Your task to perform on an android device: turn on data saver in the chrome app Image 0: 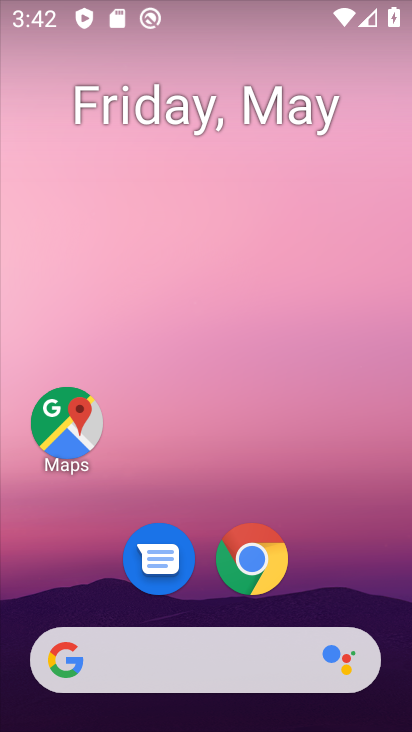
Step 0: drag from (343, 581) to (332, 137)
Your task to perform on an android device: turn on data saver in the chrome app Image 1: 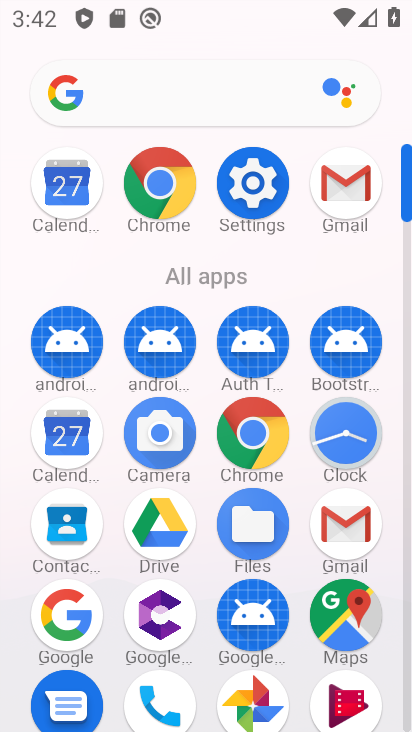
Step 1: click (146, 182)
Your task to perform on an android device: turn on data saver in the chrome app Image 2: 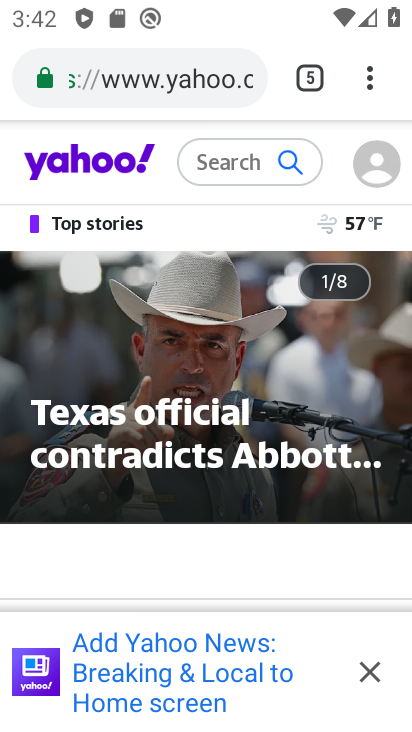
Step 2: click (367, 65)
Your task to perform on an android device: turn on data saver in the chrome app Image 3: 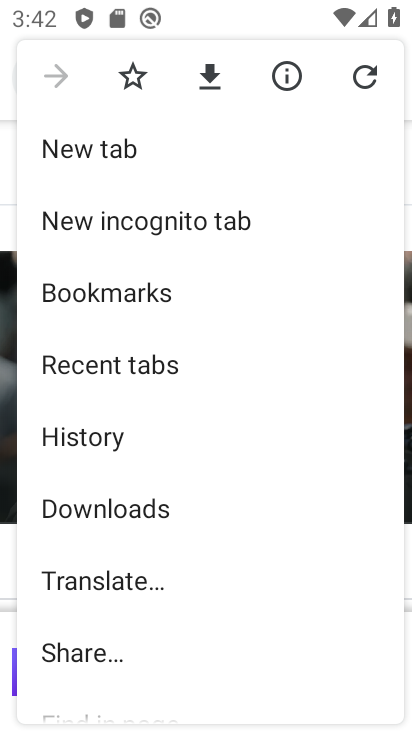
Step 3: drag from (184, 630) to (183, 245)
Your task to perform on an android device: turn on data saver in the chrome app Image 4: 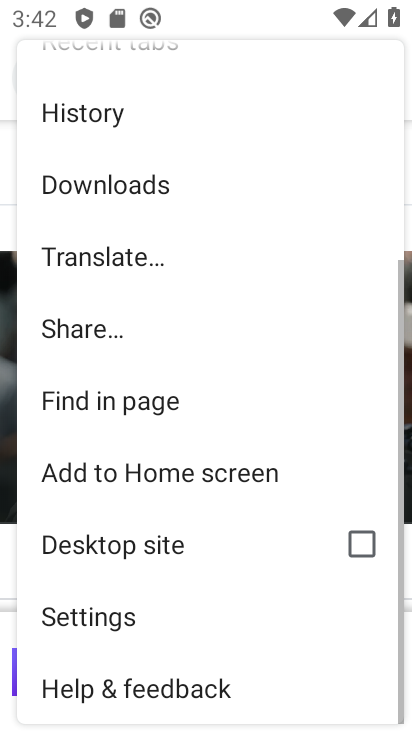
Step 4: drag from (157, 609) to (170, 198)
Your task to perform on an android device: turn on data saver in the chrome app Image 5: 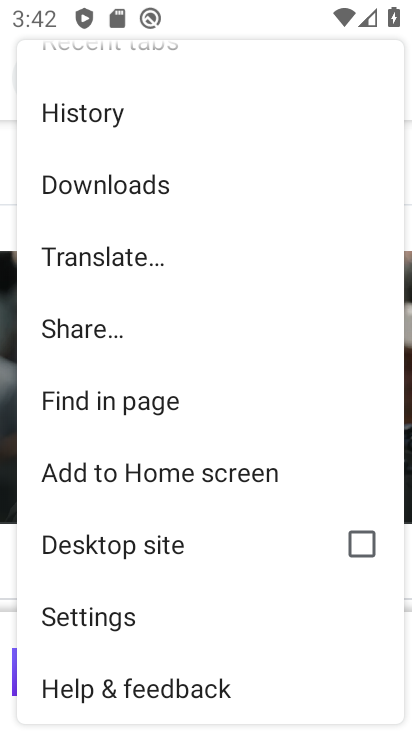
Step 5: click (88, 610)
Your task to perform on an android device: turn on data saver in the chrome app Image 6: 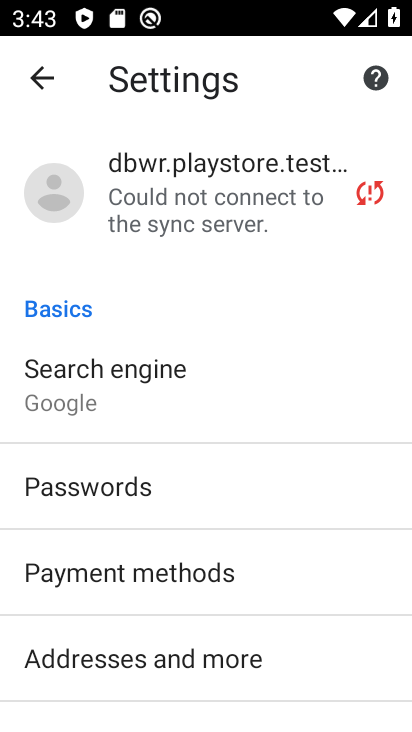
Step 6: drag from (245, 691) to (262, 307)
Your task to perform on an android device: turn on data saver in the chrome app Image 7: 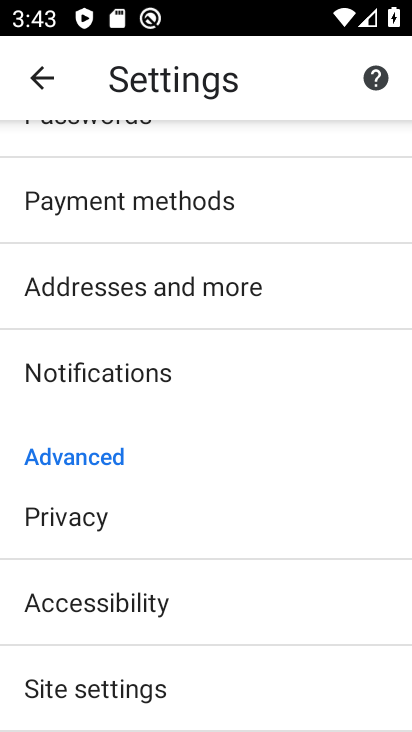
Step 7: drag from (149, 384) to (156, 256)
Your task to perform on an android device: turn on data saver in the chrome app Image 8: 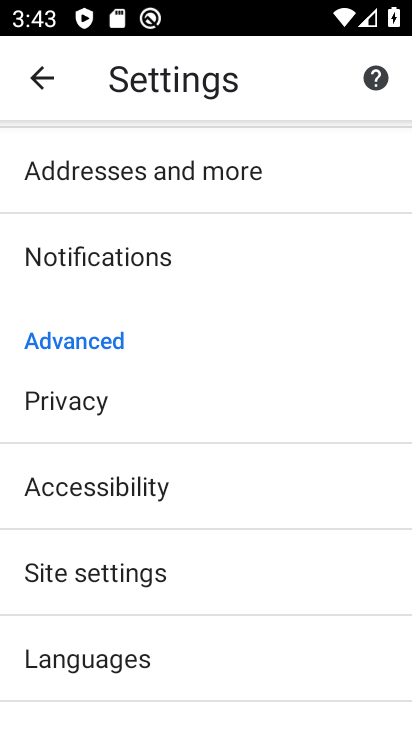
Step 8: drag from (169, 686) to (181, 292)
Your task to perform on an android device: turn on data saver in the chrome app Image 9: 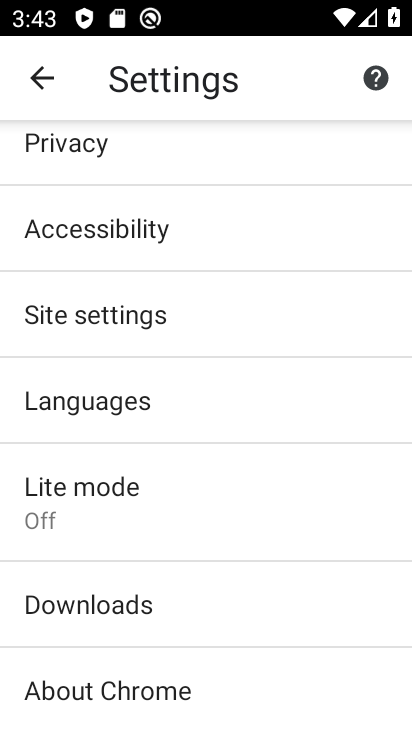
Step 9: click (207, 150)
Your task to perform on an android device: turn on data saver in the chrome app Image 10: 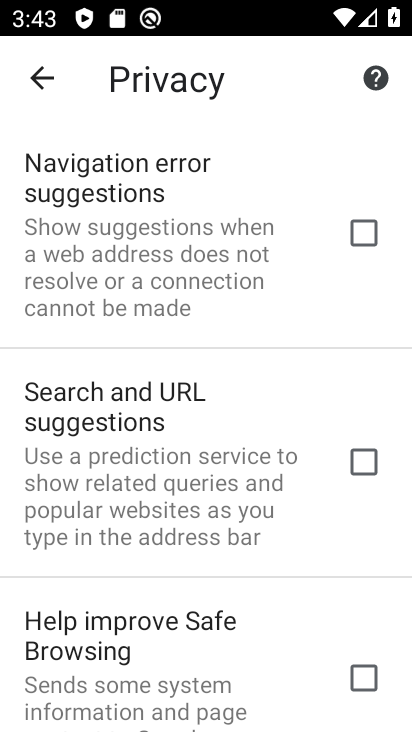
Step 10: drag from (253, 684) to (284, 307)
Your task to perform on an android device: turn on data saver in the chrome app Image 11: 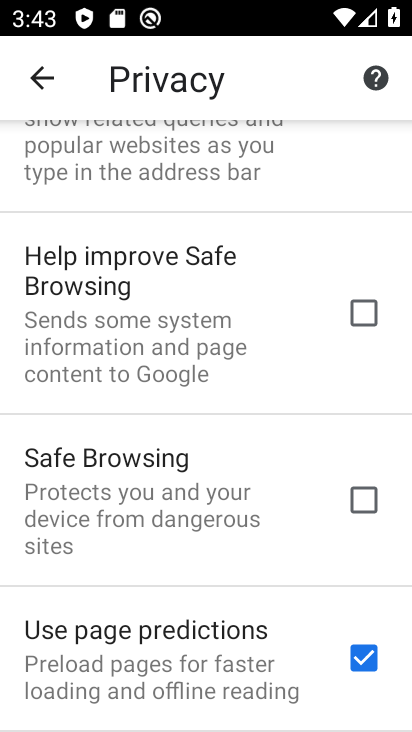
Step 11: drag from (249, 584) to (243, 284)
Your task to perform on an android device: turn on data saver in the chrome app Image 12: 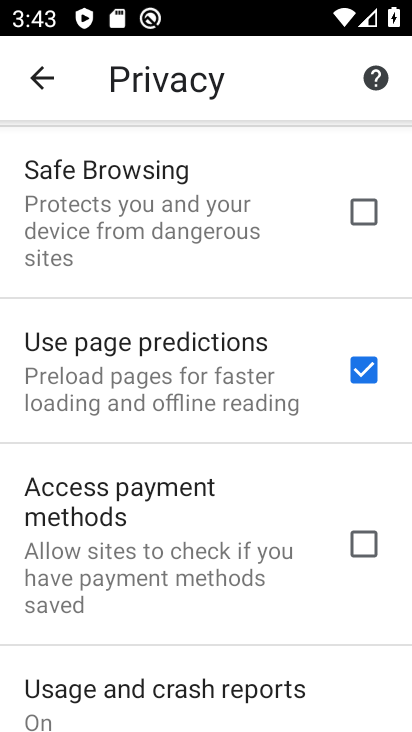
Step 12: drag from (133, 639) to (159, 177)
Your task to perform on an android device: turn on data saver in the chrome app Image 13: 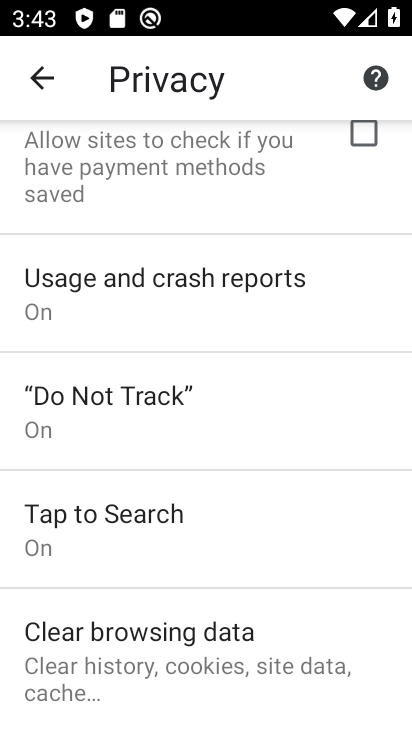
Step 13: drag from (187, 621) to (218, 224)
Your task to perform on an android device: turn on data saver in the chrome app Image 14: 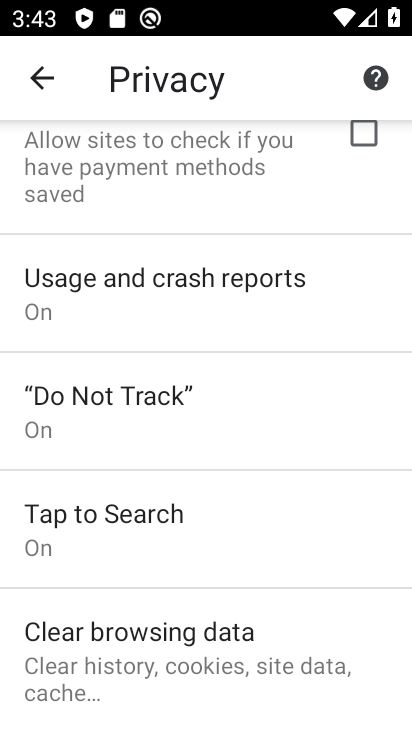
Step 14: click (202, 630)
Your task to perform on an android device: turn on data saver in the chrome app Image 15: 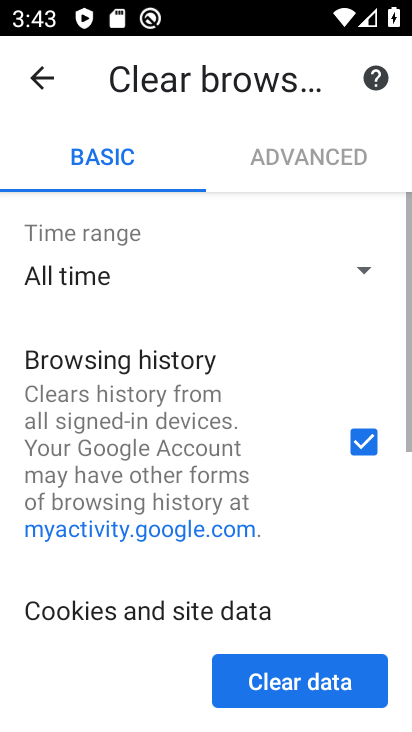
Step 15: task complete